Your task to perform on an android device: see creations saved in the google photos Image 0: 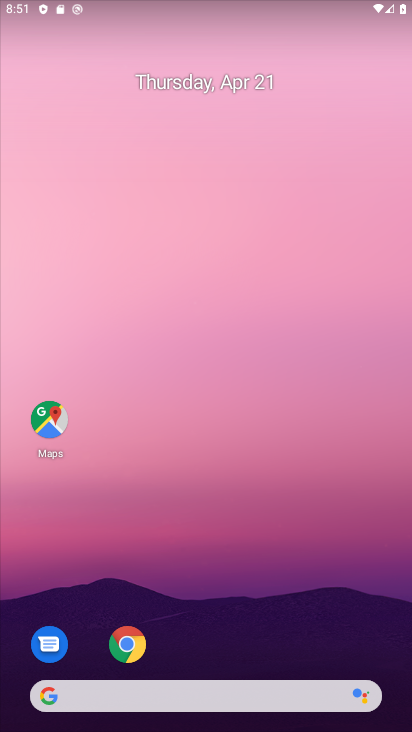
Step 0: drag from (226, 638) to (144, 10)
Your task to perform on an android device: see creations saved in the google photos Image 1: 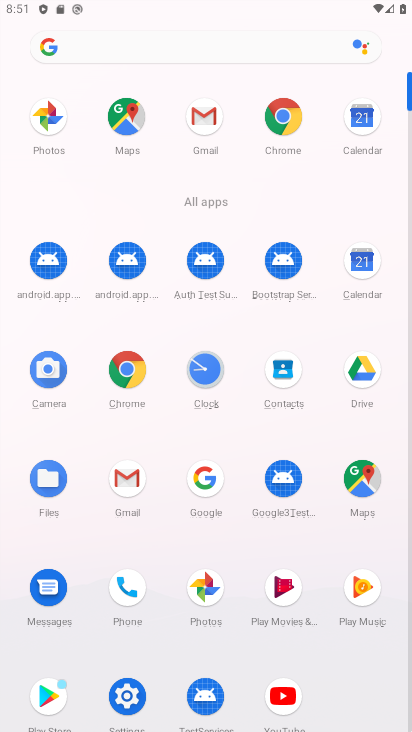
Step 1: click (208, 589)
Your task to perform on an android device: see creations saved in the google photos Image 2: 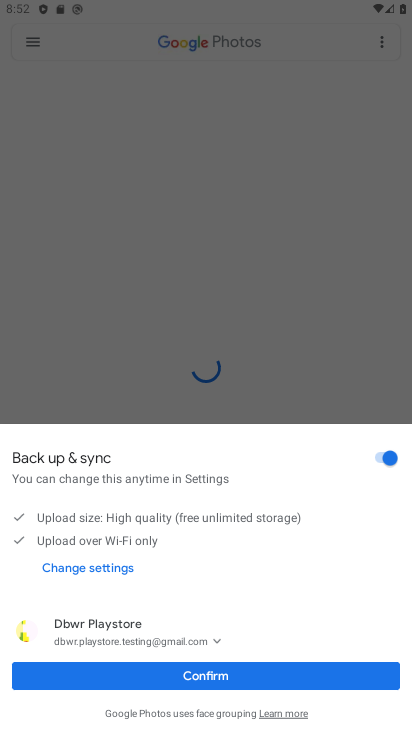
Step 2: click (209, 680)
Your task to perform on an android device: see creations saved in the google photos Image 3: 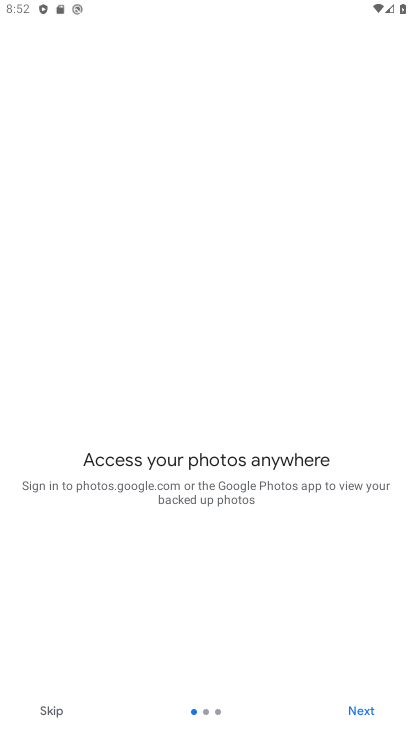
Step 3: click (358, 707)
Your task to perform on an android device: see creations saved in the google photos Image 4: 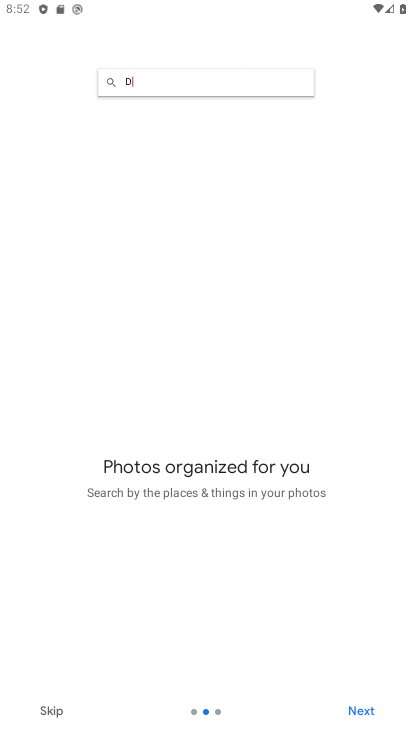
Step 4: click (358, 707)
Your task to perform on an android device: see creations saved in the google photos Image 5: 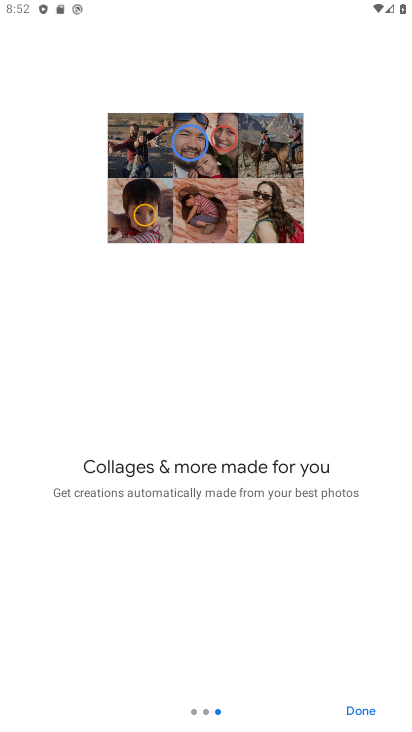
Step 5: click (364, 708)
Your task to perform on an android device: see creations saved in the google photos Image 6: 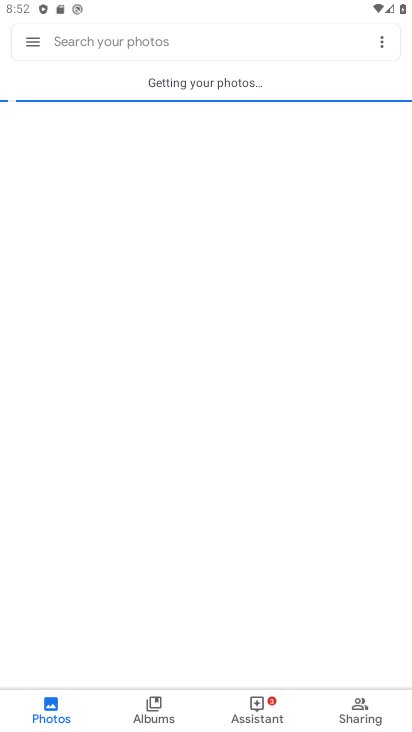
Step 6: click (149, 710)
Your task to perform on an android device: see creations saved in the google photos Image 7: 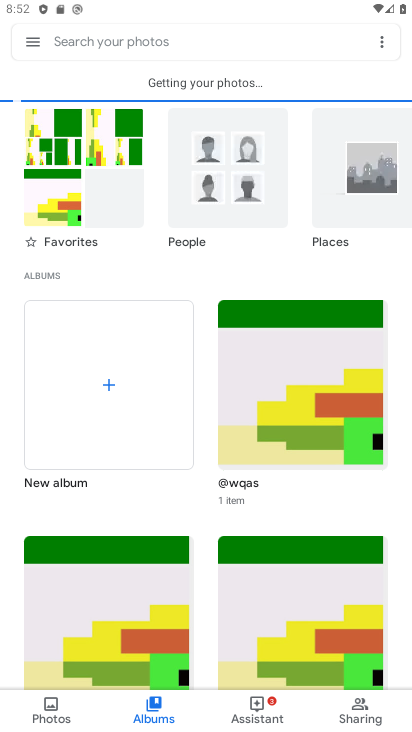
Step 7: click (248, 703)
Your task to perform on an android device: see creations saved in the google photos Image 8: 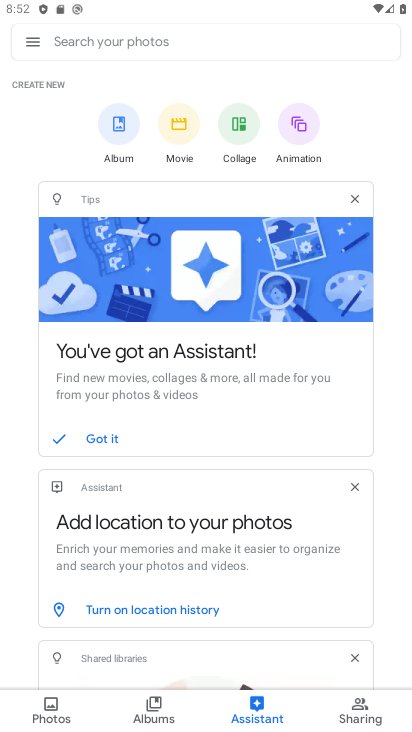
Step 8: click (368, 711)
Your task to perform on an android device: see creations saved in the google photos Image 9: 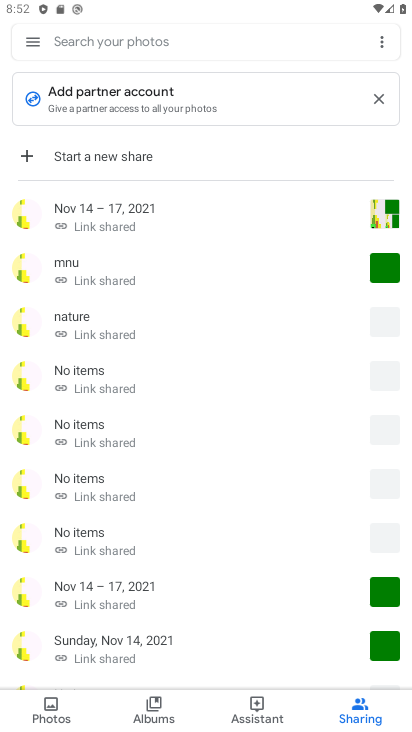
Step 9: task complete